Your task to perform on an android device: Search for a new phone on Amazon. Image 0: 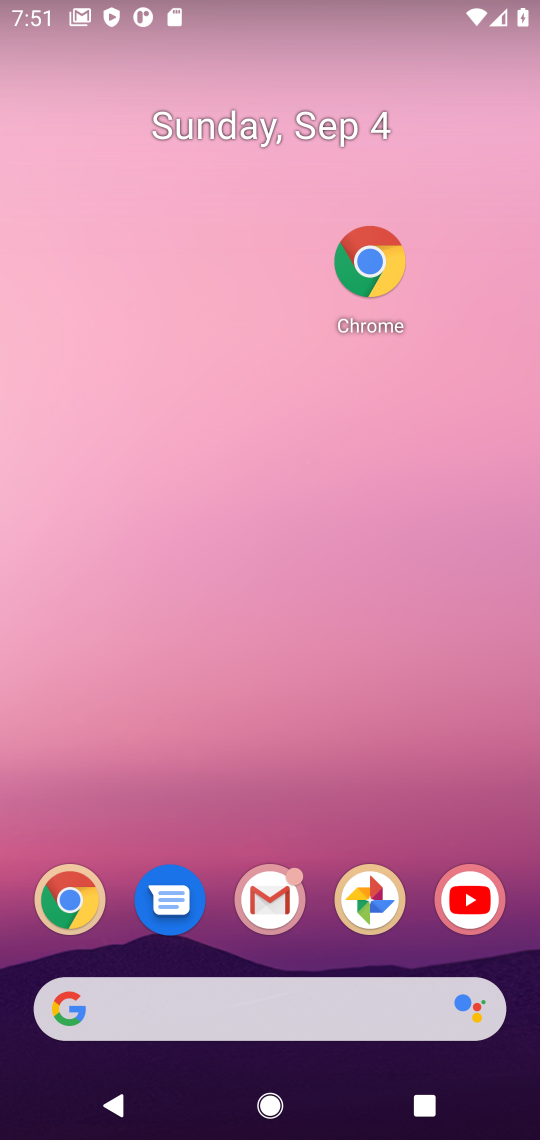
Step 0: click (348, 248)
Your task to perform on an android device: Search for a new phone on Amazon. Image 1: 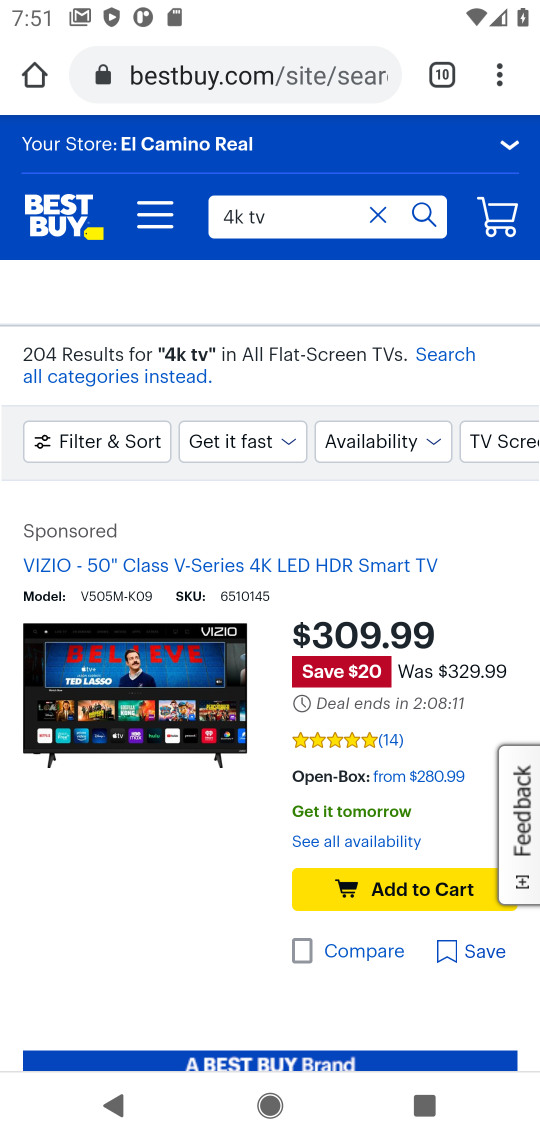
Step 1: click (451, 80)
Your task to perform on an android device: Search for a new phone on Amazon. Image 2: 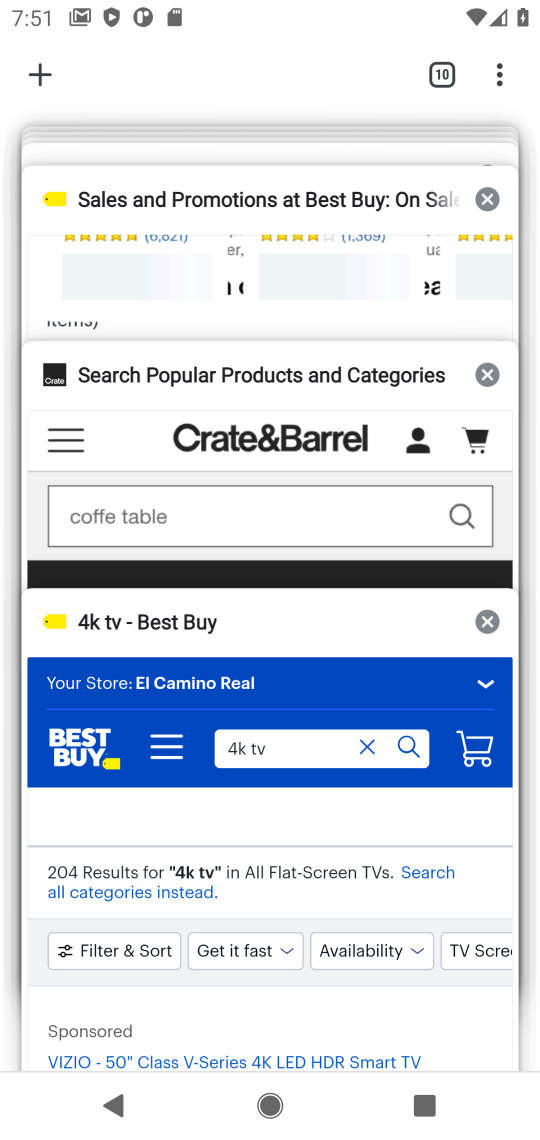
Step 2: click (40, 74)
Your task to perform on an android device: Search for a new phone on Amazon. Image 3: 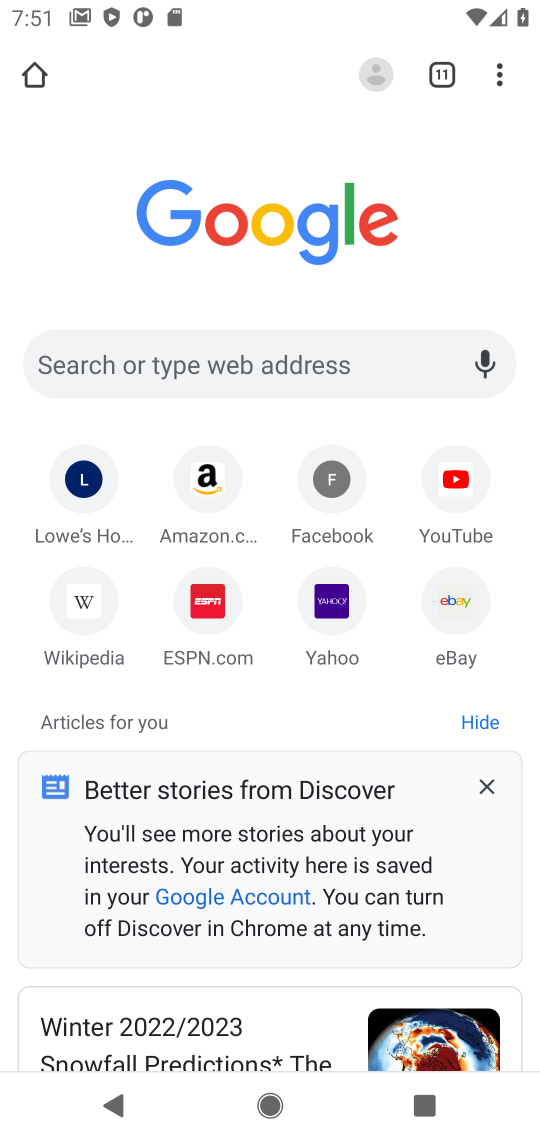
Step 3: click (208, 477)
Your task to perform on an android device: Search for a new phone on Amazon. Image 4: 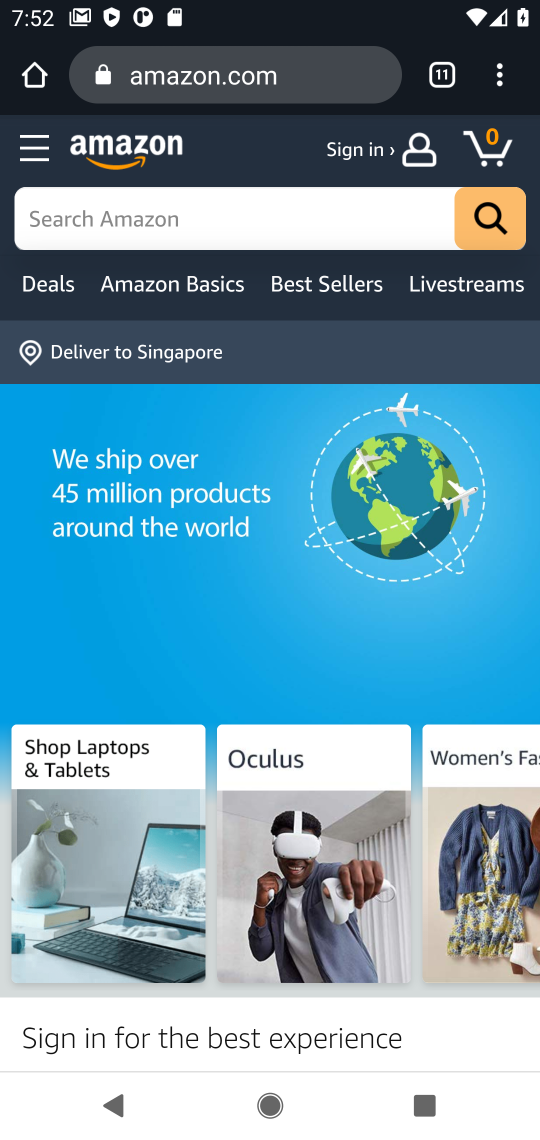
Step 4: click (245, 220)
Your task to perform on an android device: Search for a new phone on Amazon. Image 5: 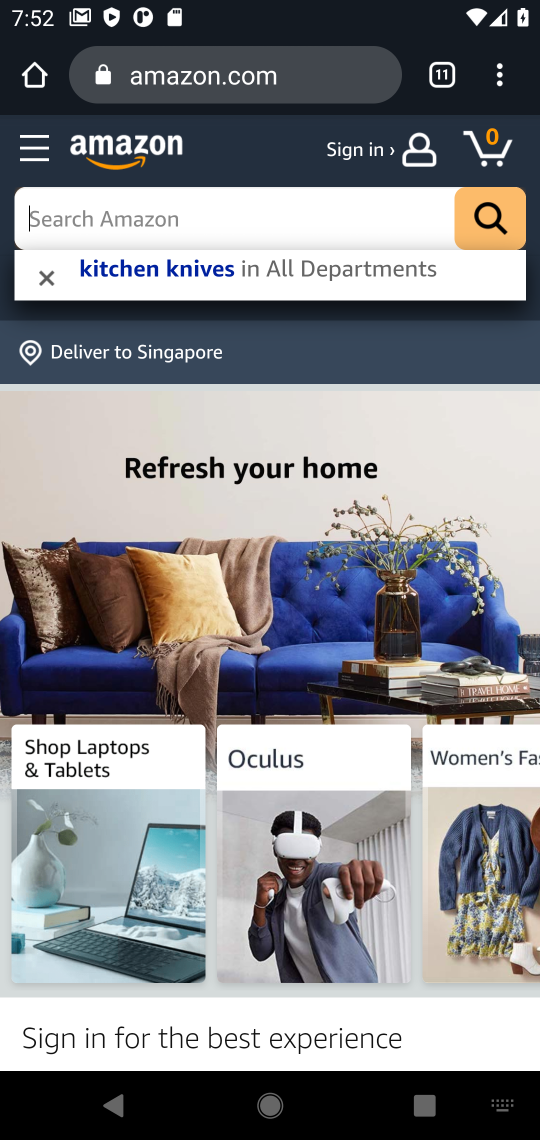
Step 5: type "new phone"
Your task to perform on an android device: Search for a new phone on Amazon. Image 6: 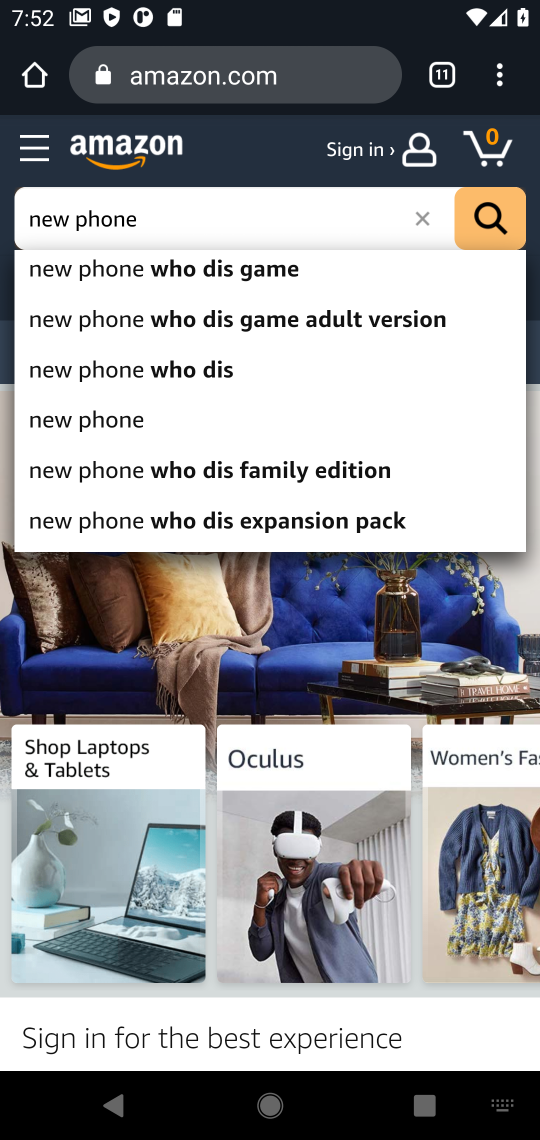
Step 6: click (84, 426)
Your task to perform on an android device: Search for a new phone on Amazon. Image 7: 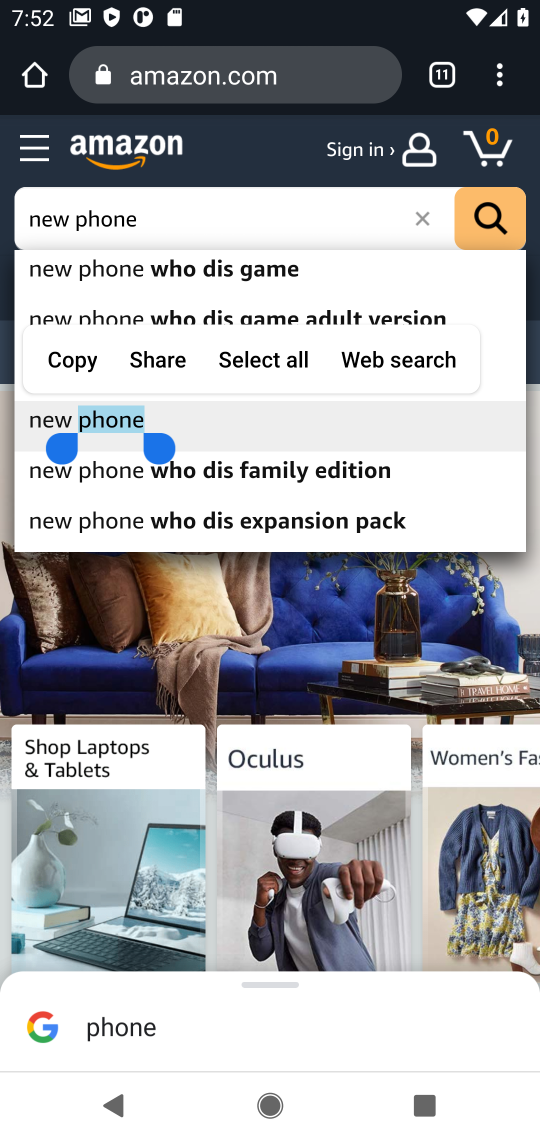
Step 7: click (115, 408)
Your task to perform on an android device: Search for a new phone on Amazon. Image 8: 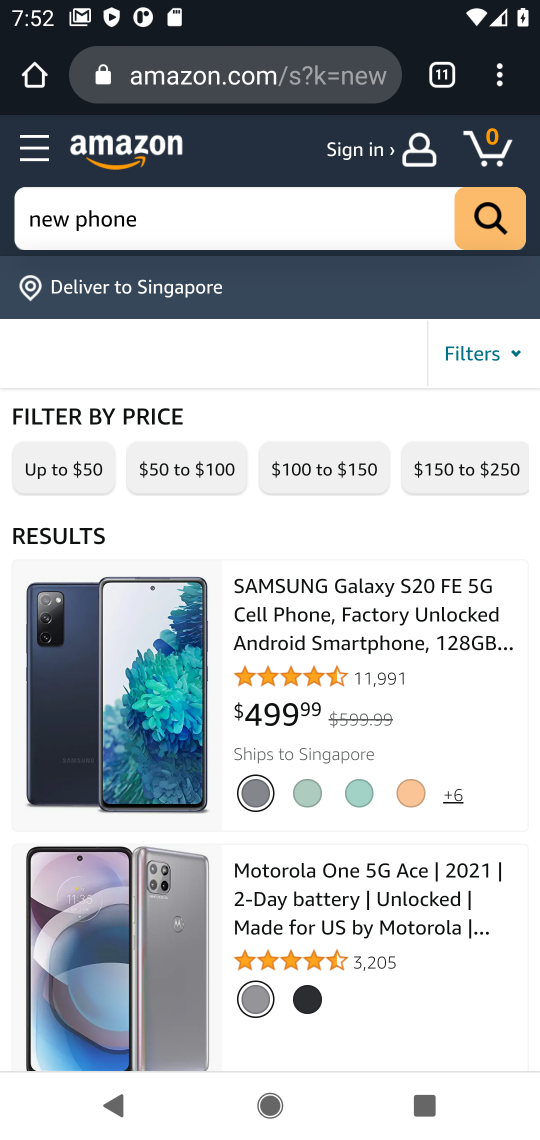
Step 8: task complete